Your task to perform on an android device: open app "Viber Messenger" Image 0: 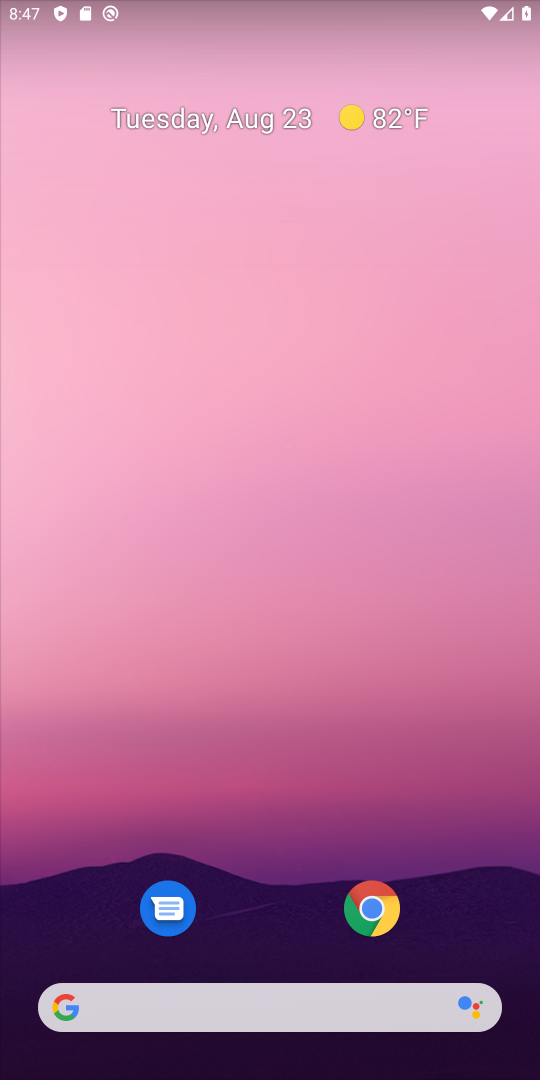
Step 0: drag from (242, 956) to (191, 0)
Your task to perform on an android device: open app "Viber Messenger" Image 1: 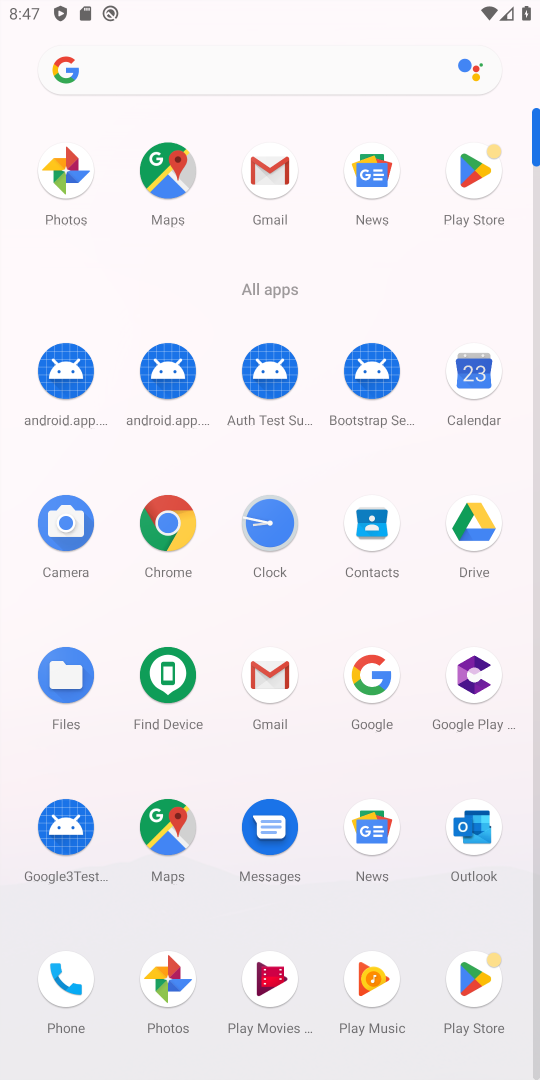
Step 1: click (465, 182)
Your task to perform on an android device: open app "Viber Messenger" Image 2: 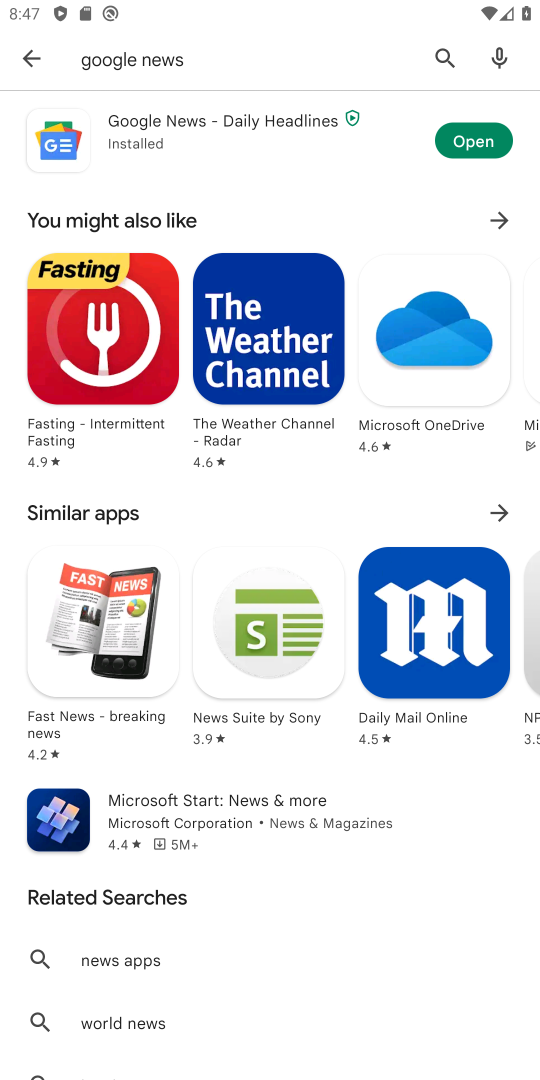
Step 2: click (156, 63)
Your task to perform on an android device: open app "Viber Messenger" Image 3: 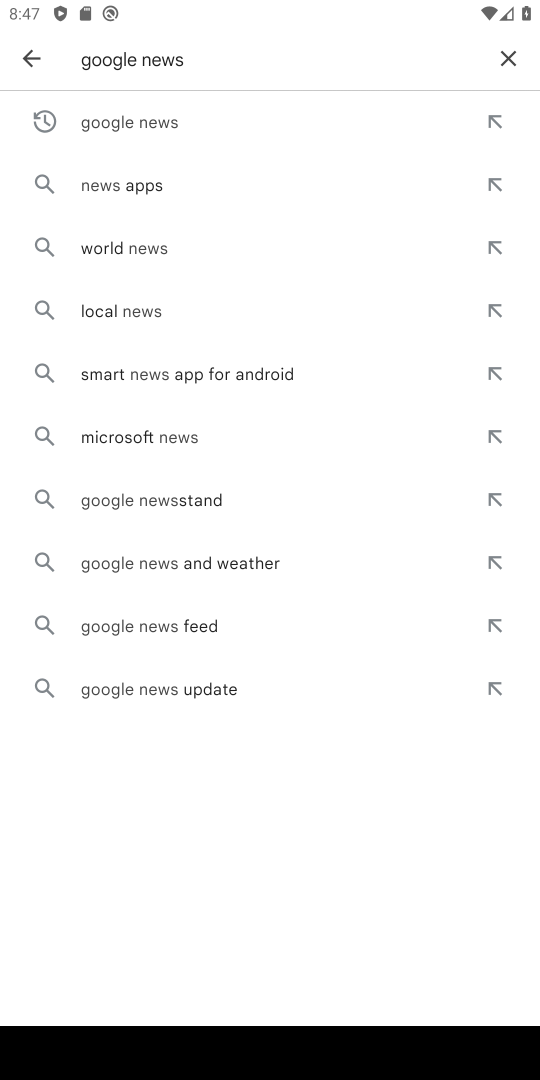
Step 3: click (511, 58)
Your task to perform on an android device: open app "Viber Messenger" Image 4: 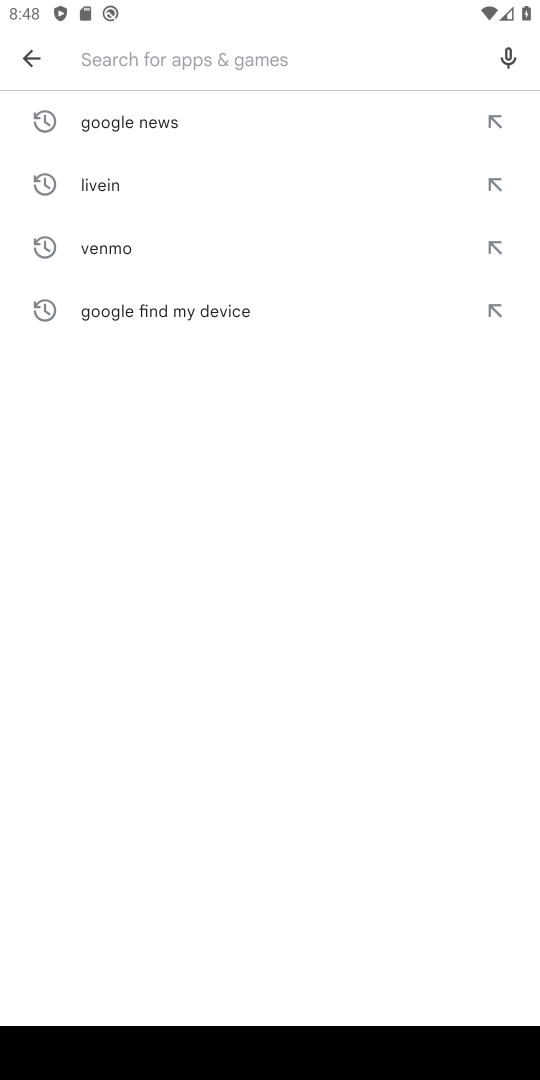
Step 4: type "viber messenger"
Your task to perform on an android device: open app "Viber Messenger" Image 5: 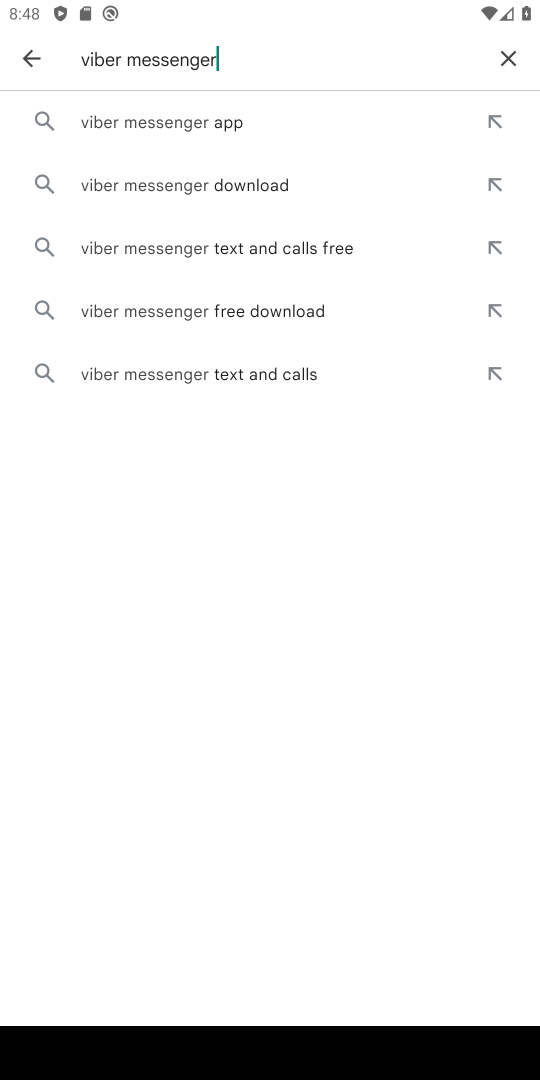
Step 5: click (142, 112)
Your task to perform on an android device: open app "Viber Messenger" Image 6: 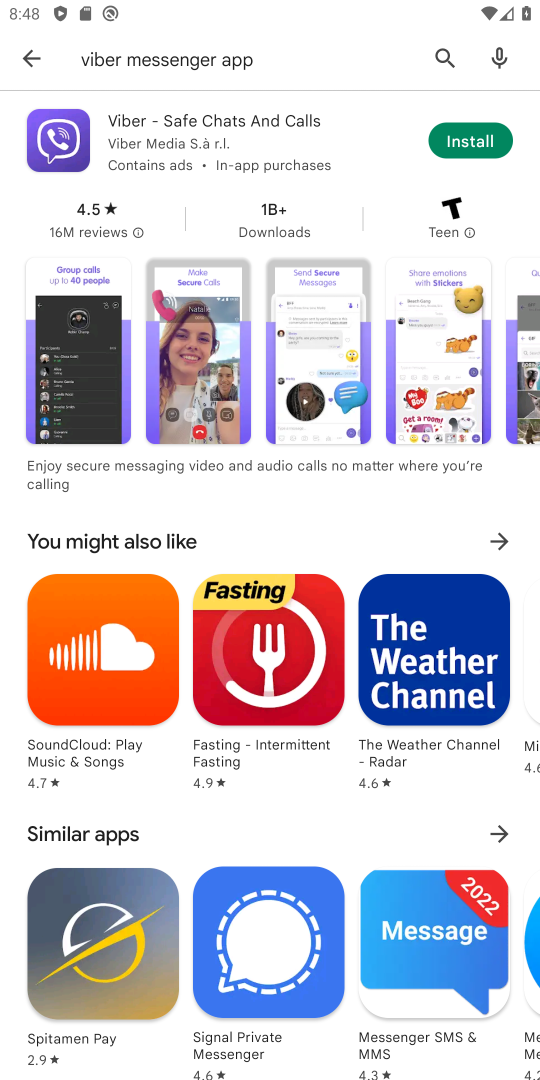
Step 6: task complete